Your task to perform on an android device: Go to sound settings Image 0: 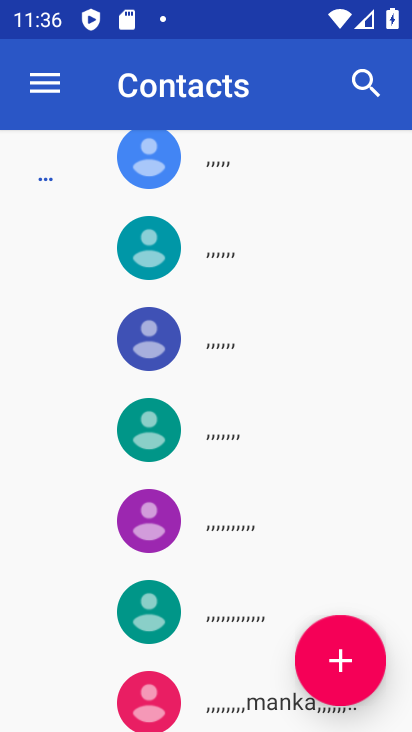
Step 0: press home button
Your task to perform on an android device: Go to sound settings Image 1: 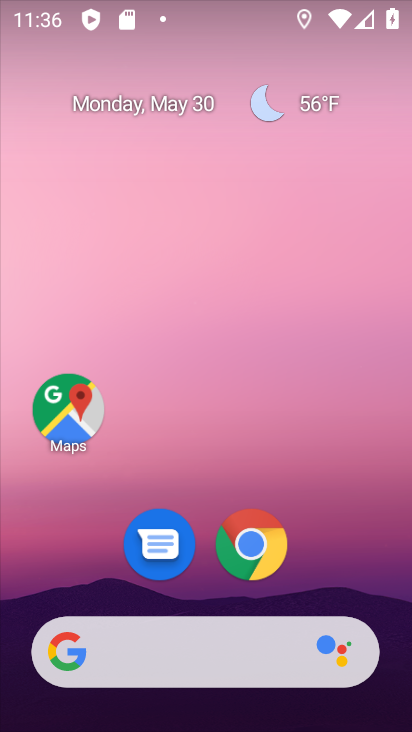
Step 1: drag from (320, 484) to (231, 127)
Your task to perform on an android device: Go to sound settings Image 2: 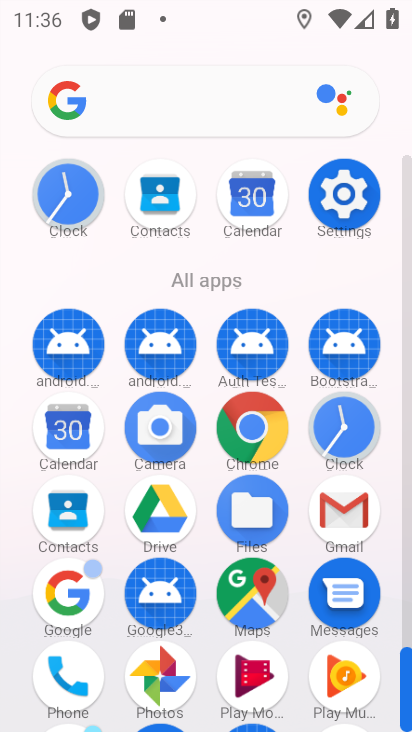
Step 2: click (342, 192)
Your task to perform on an android device: Go to sound settings Image 3: 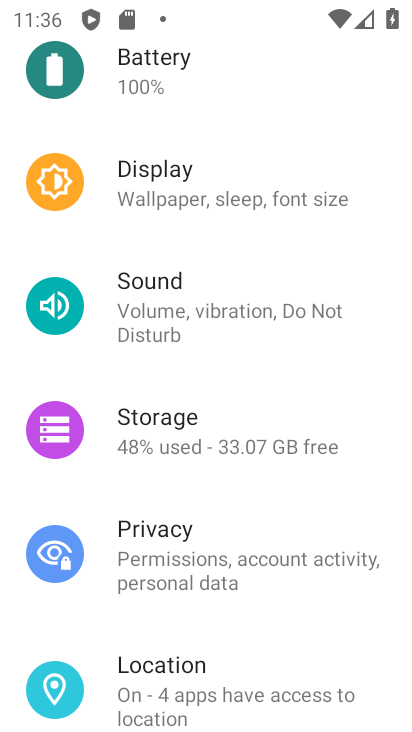
Step 3: click (133, 293)
Your task to perform on an android device: Go to sound settings Image 4: 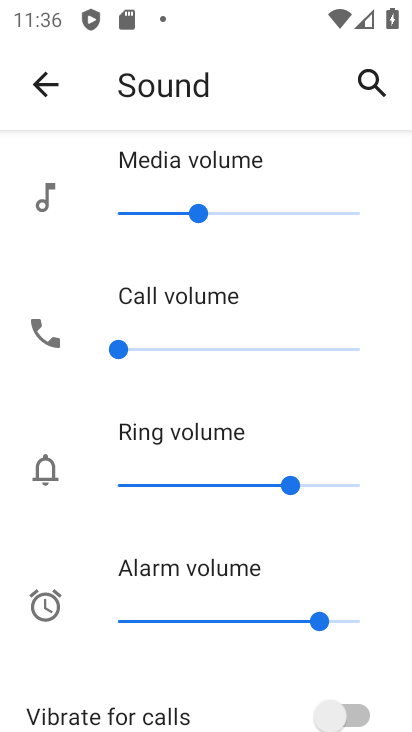
Step 4: task complete